Your task to perform on an android device: add a contact in the contacts app Image 0: 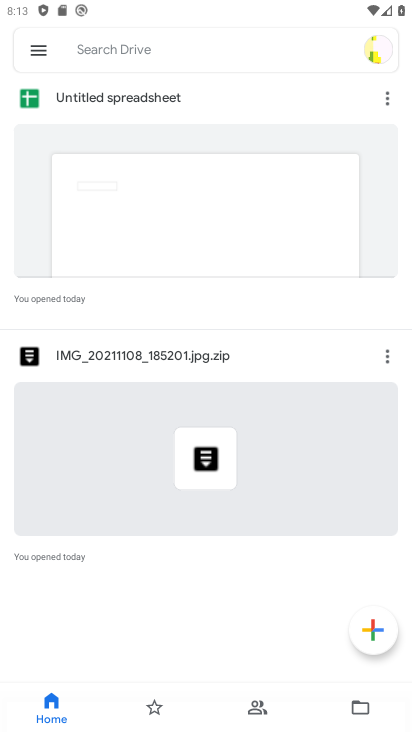
Step 0: press home button
Your task to perform on an android device: add a contact in the contacts app Image 1: 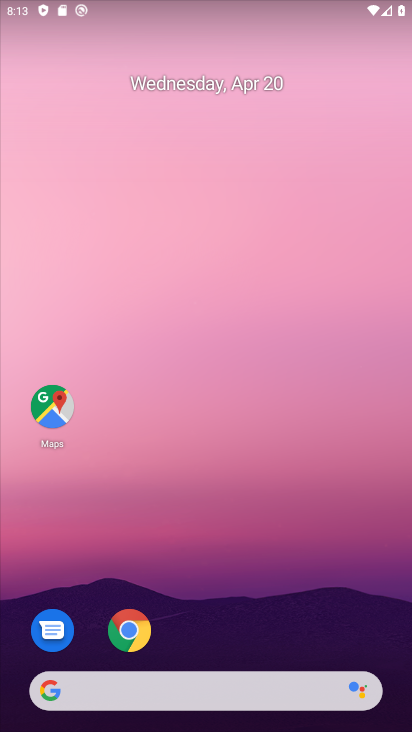
Step 1: drag from (179, 617) to (312, 51)
Your task to perform on an android device: add a contact in the contacts app Image 2: 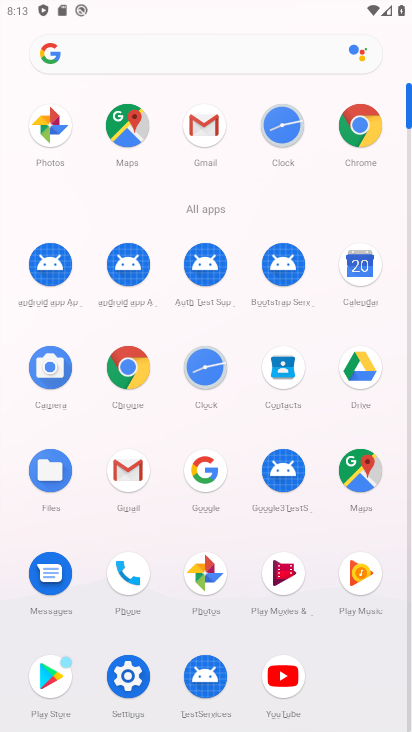
Step 2: click (272, 379)
Your task to perform on an android device: add a contact in the contacts app Image 3: 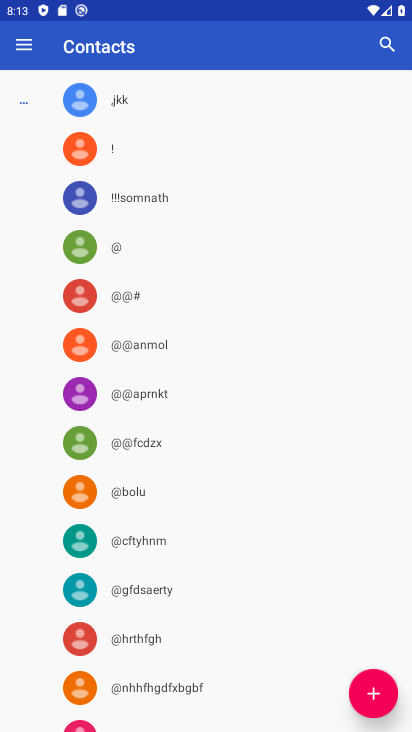
Step 3: click (371, 697)
Your task to perform on an android device: add a contact in the contacts app Image 4: 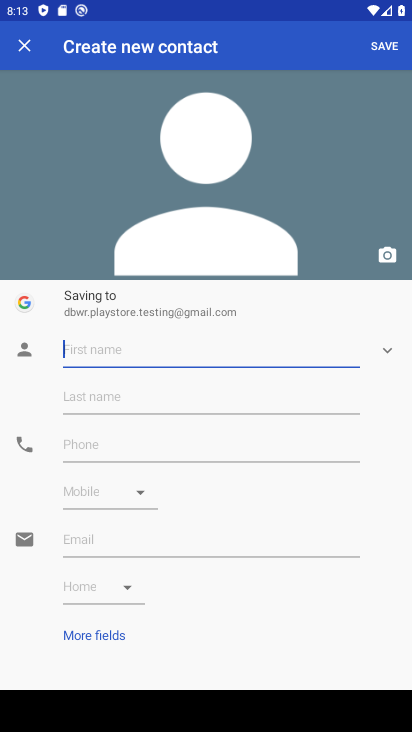
Step 4: type "acostle"
Your task to perform on an android device: add a contact in the contacts app Image 5: 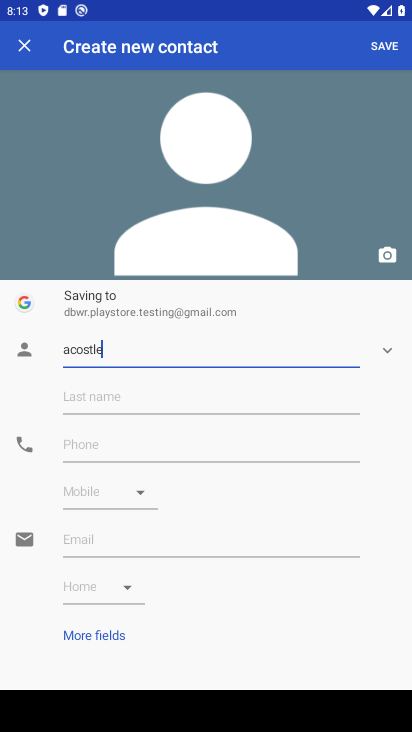
Step 5: click (388, 43)
Your task to perform on an android device: add a contact in the contacts app Image 6: 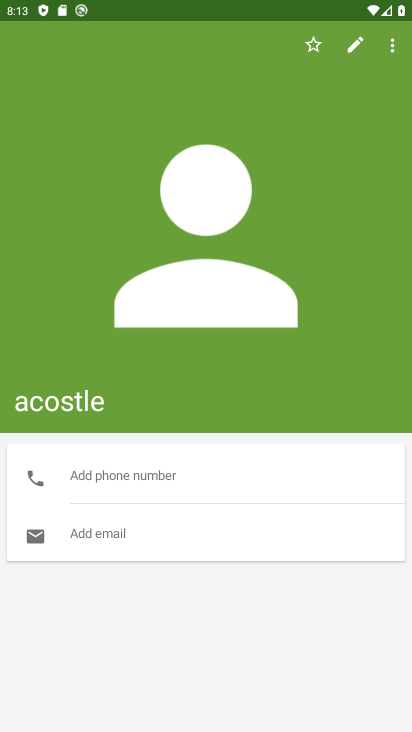
Step 6: task complete